Your task to perform on an android device: Go to display settings Image 0: 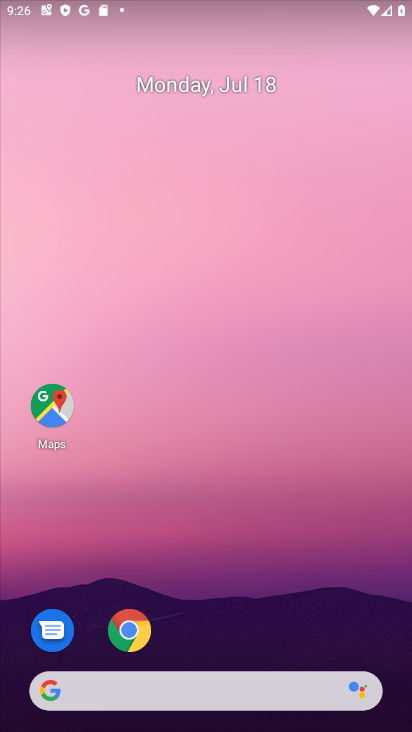
Step 0: drag from (394, 648) to (285, 68)
Your task to perform on an android device: Go to display settings Image 1: 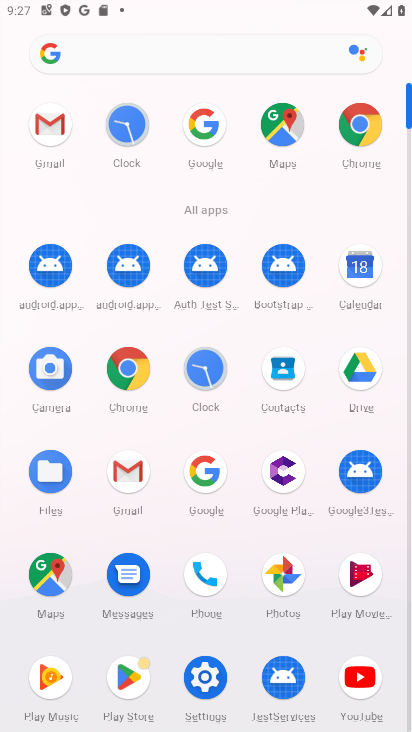
Step 1: click (200, 672)
Your task to perform on an android device: Go to display settings Image 2: 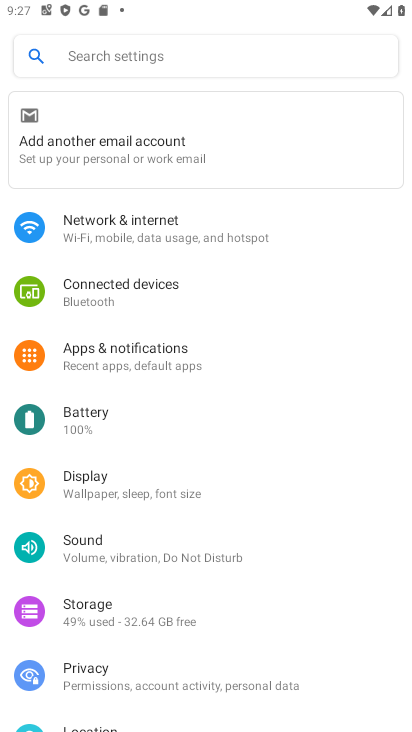
Step 2: click (100, 482)
Your task to perform on an android device: Go to display settings Image 3: 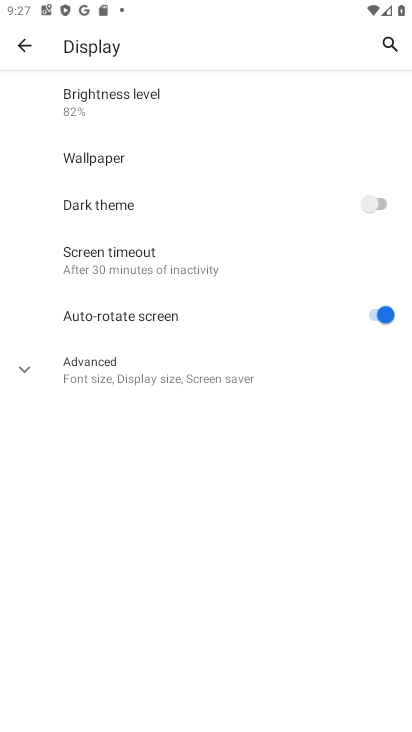
Step 3: task complete